Your task to perform on an android device: turn on improve location accuracy Image 0: 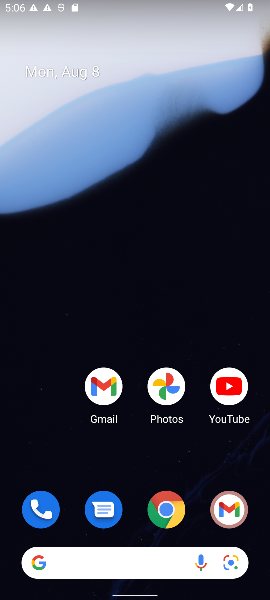
Step 0: drag from (132, 473) to (126, 17)
Your task to perform on an android device: turn on improve location accuracy Image 1: 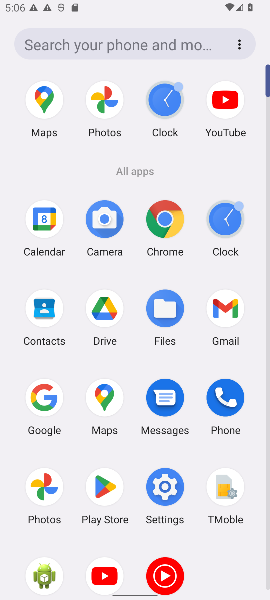
Step 1: click (164, 486)
Your task to perform on an android device: turn on improve location accuracy Image 2: 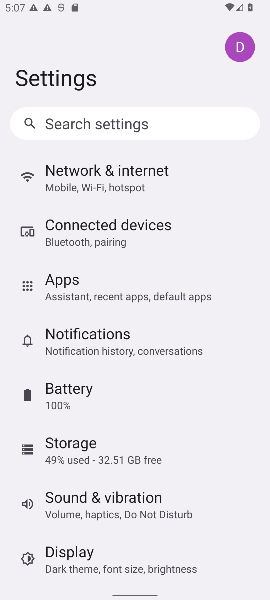
Step 2: drag from (197, 540) to (195, 131)
Your task to perform on an android device: turn on improve location accuracy Image 3: 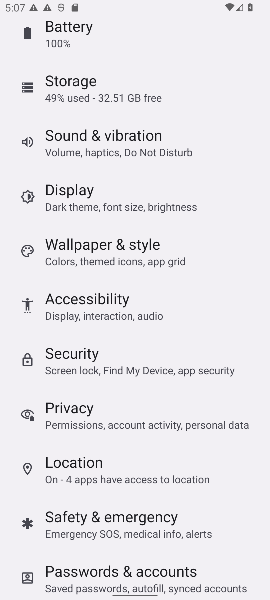
Step 3: click (75, 463)
Your task to perform on an android device: turn on improve location accuracy Image 4: 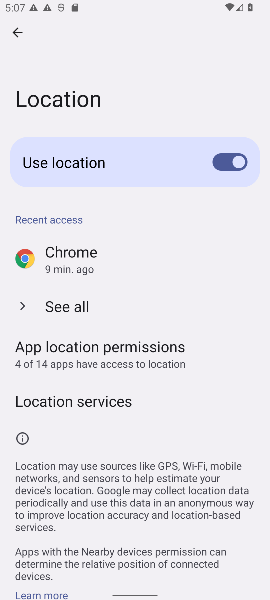
Step 4: click (80, 402)
Your task to perform on an android device: turn on improve location accuracy Image 5: 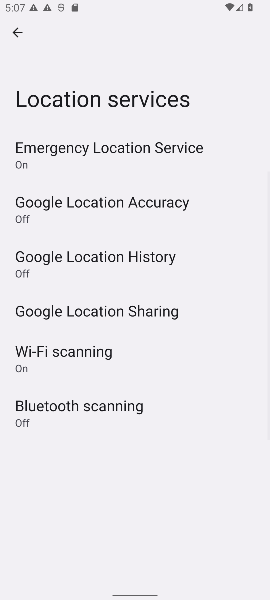
Step 5: click (96, 196)
Your task to perform on an android device: turn on improve location accuracy Image 6: 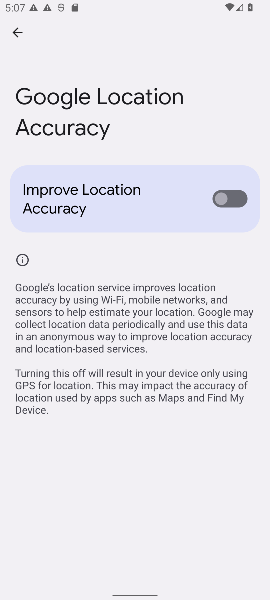
Step 6: click (222, 192)
Your task to perform on an android device: turn on improve location accuracy Image 7: 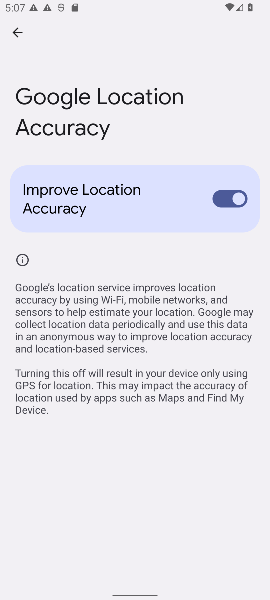
Step 7: task complete